Your task to perform on an android device: Open maps Image 0: 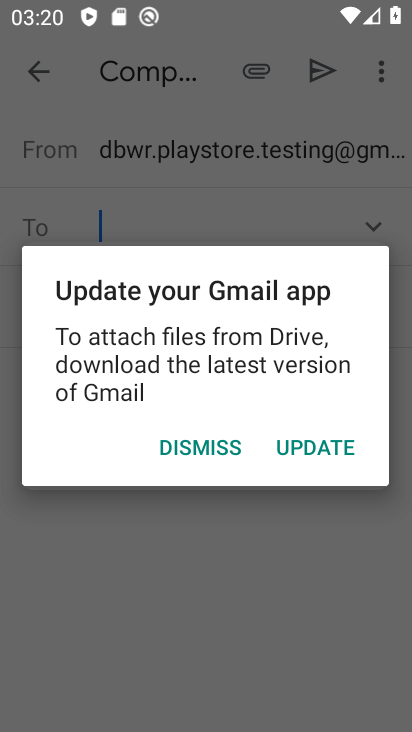
Step 0: press home button
Your task to perform on an android device: Open maps Image 1: 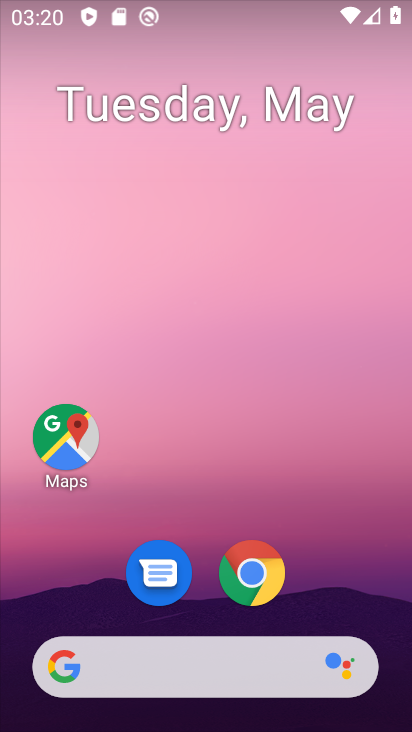
Step 1: click (75, 432)
Your task to perform on an android device: Open maps Image 2: 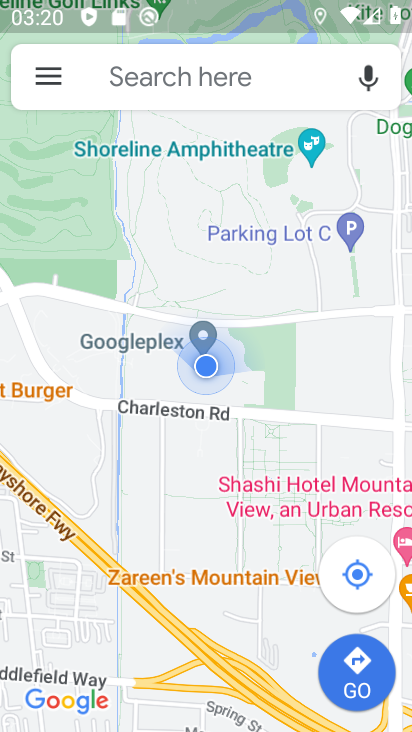
Step 2: task complete